Your task to perform on an android device: turn notification dots off Image 0: 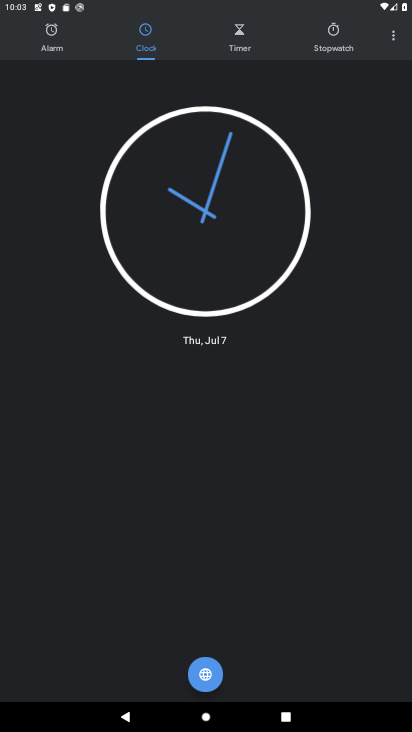
Step 0: press home button
Your task to perform on an android device: turn notification dots off Image 1: 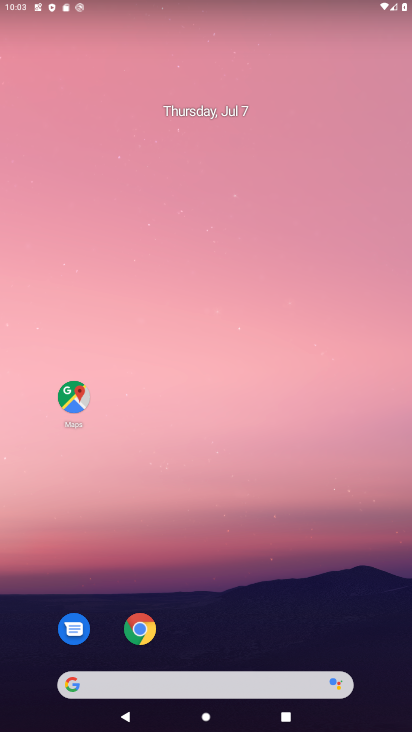
Step 1: drag from (229, 629) to (196, 241)
Your task to perform on an android device: turn notification dots off Image 2: 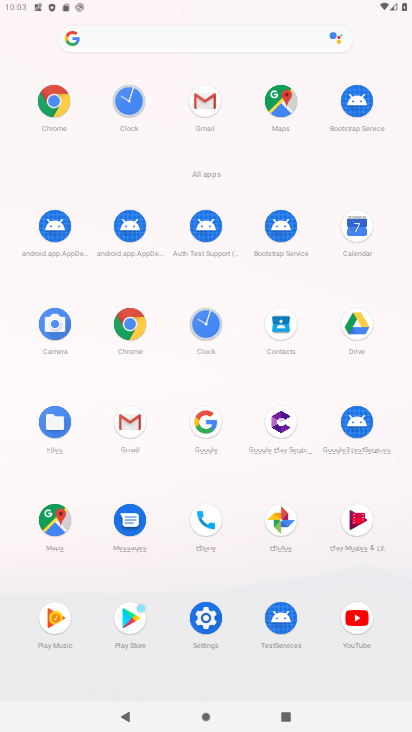
Step 2: click (205, 625)
Your task to perform on an android device: turn notification dots off Image 3: 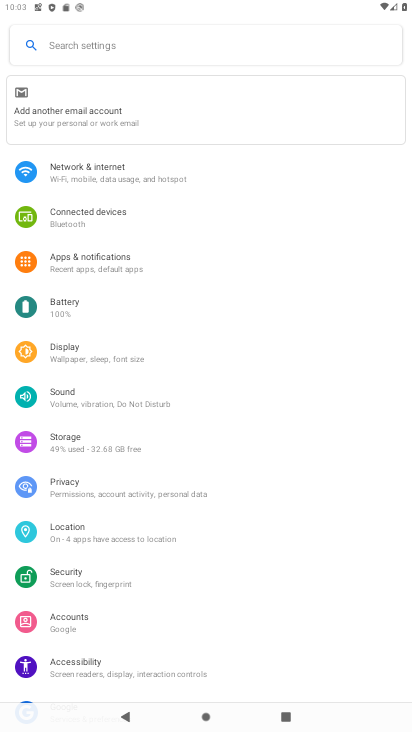
Step 3: click (83, 262)
Your task to perform on an android device: turn notification dots off Image 4: 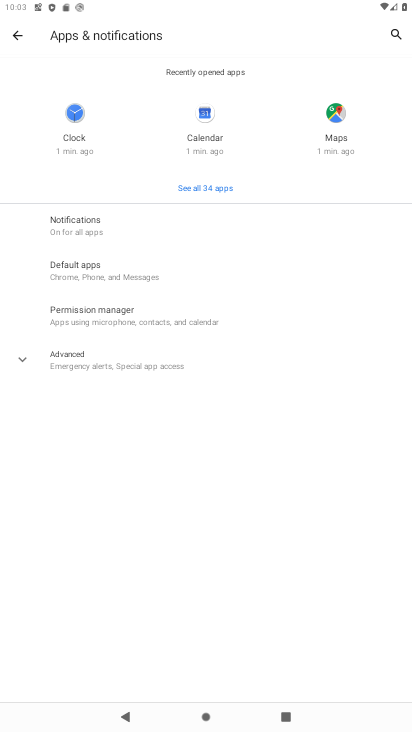
Step 4: click (85, 222)
Your task to perform on an android device: turn notification dots off Image 5: 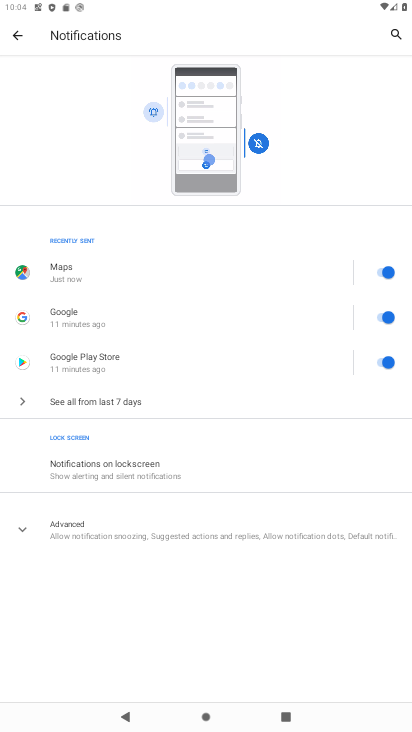
Step 5: click (66, 531)
Your task to perform on an android device: turn notification dots off Image 6: 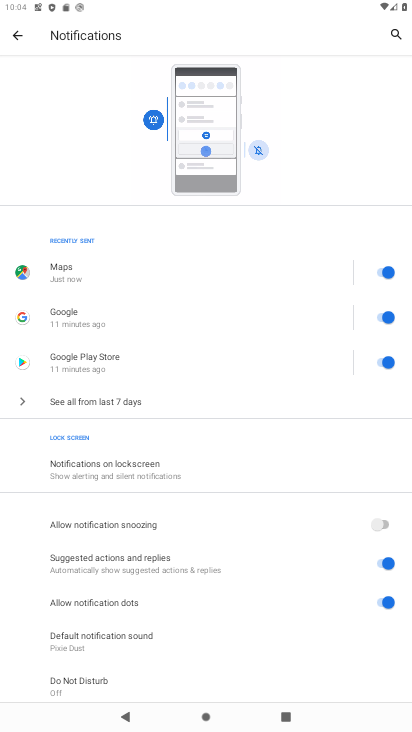
Step 6: click (389, 607)
Your task to perform on an android device: turn notification dots off Image 7: 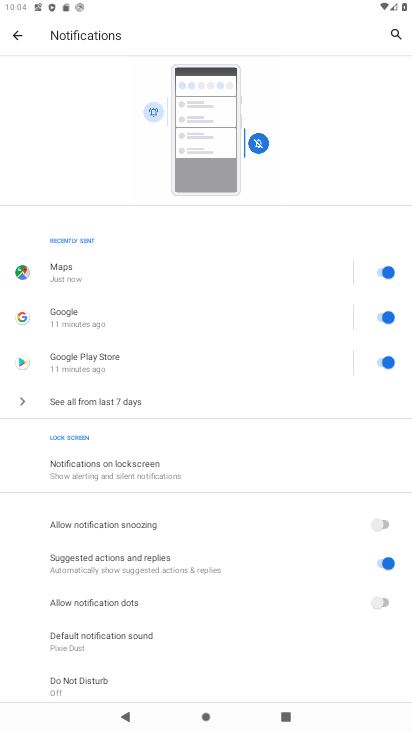
Step 7: task complete